Your task to perform on an android device: open app "Yahoo Mail" (install if not already installed), go to login, and select forgot password Image 0: 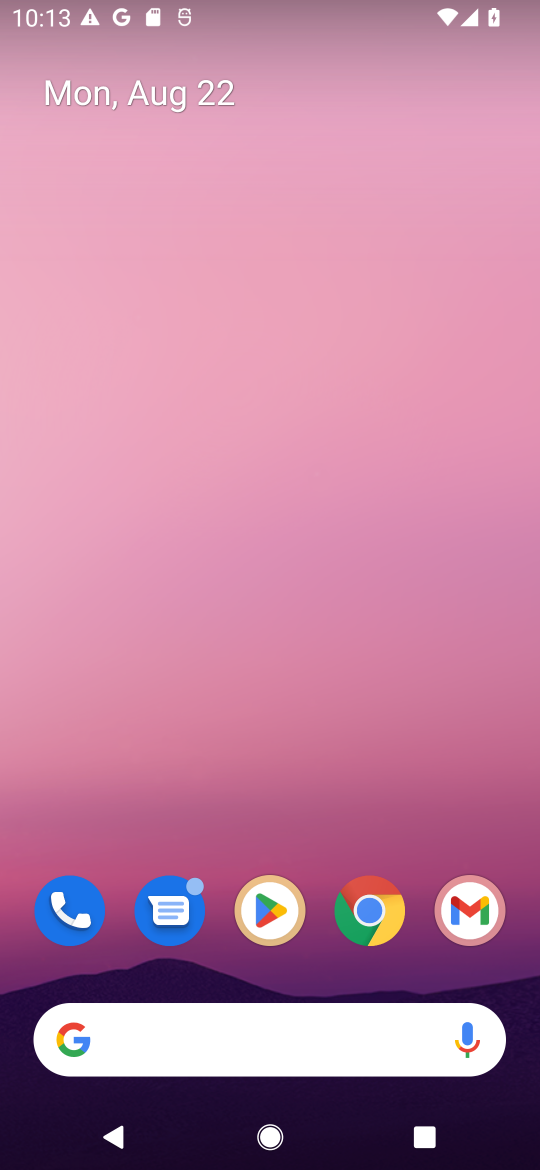
Step 0: click (287, 920)
Your task to perform on an android device: open app "Yahoo Mail" (install if not already installed), go to login, and select forgot password Image 1: 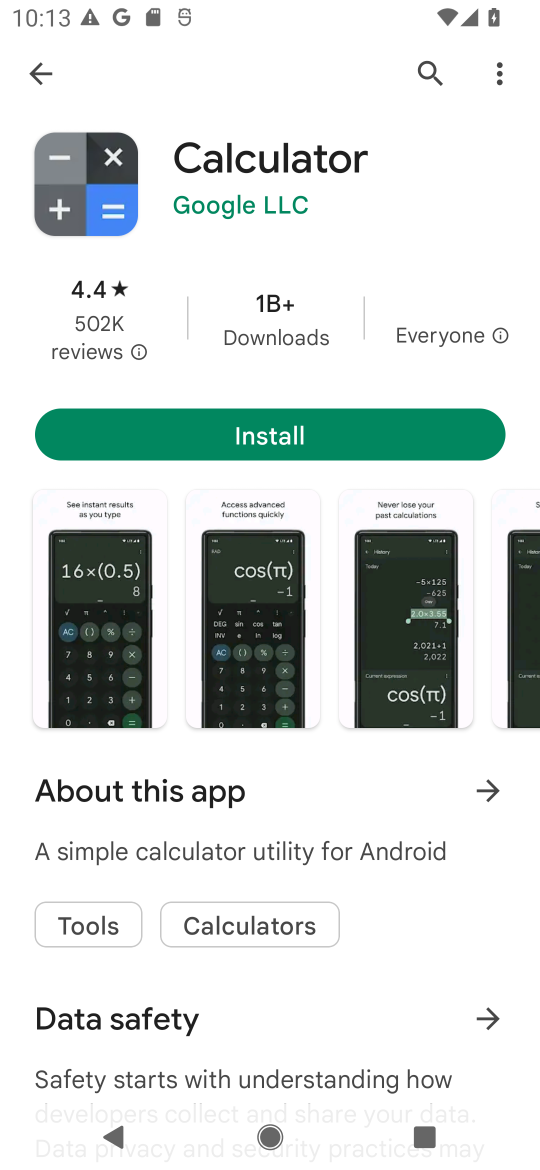
Step 1: click (422, 77)
Your task to perform on an android device: open app "Yahoo Mail" (install if not already installed), go to login, and select forgot password Image 2: 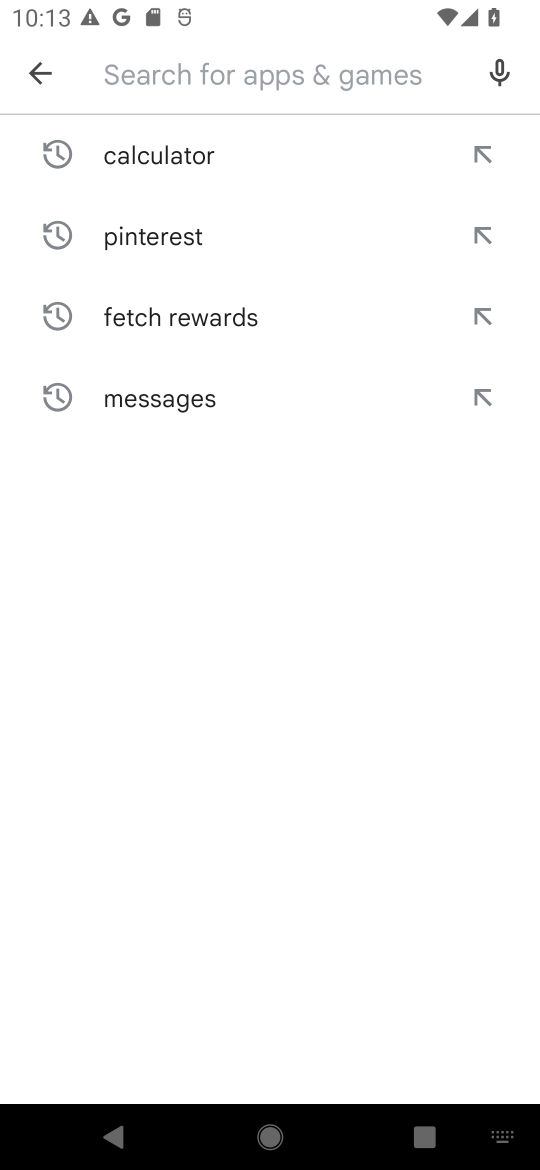
Step 2: type "Yahoo Mail"
Your task to perform on an android device: open app "Yahoo Mail" (install if not already installed), go to login, and select forgot password Image 3: 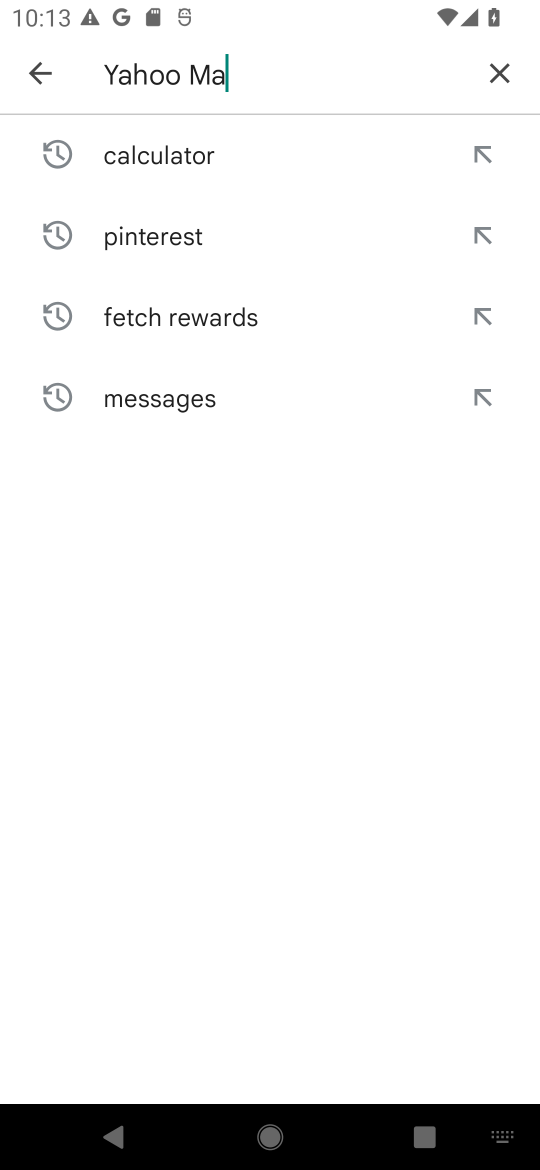
Step 3: type ""
Your task to perform on an android device: open app "Yahoo Mail" (install if not already installed), go to login, and select forgot password Image 4: 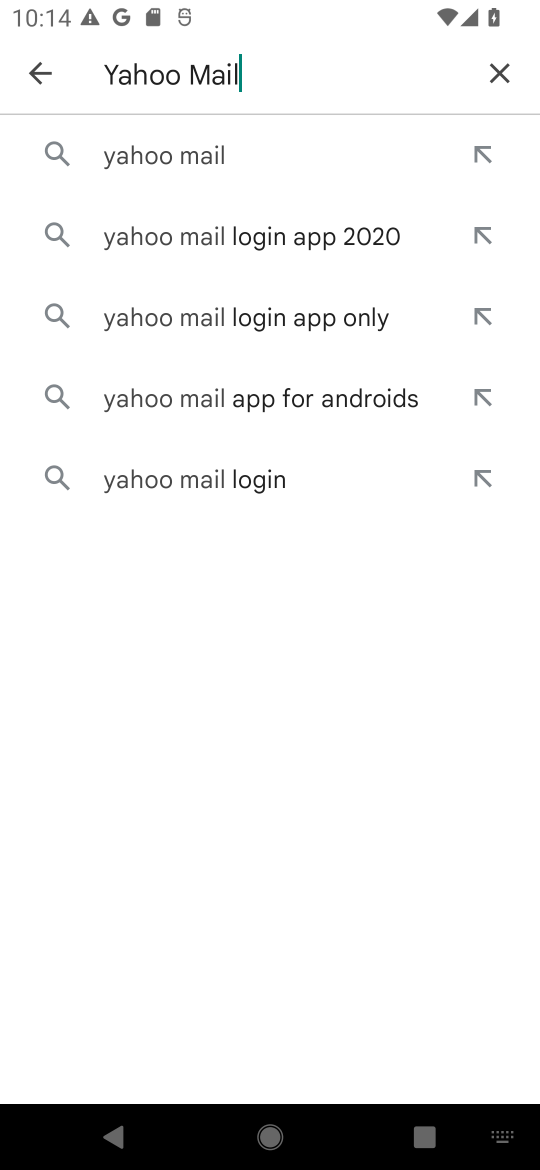
Step 4: click (217, 143)
Your task to perform on an android device: open app "Yahoo Mail" (install if not already installed), go to login, and select forgot password Image 5: 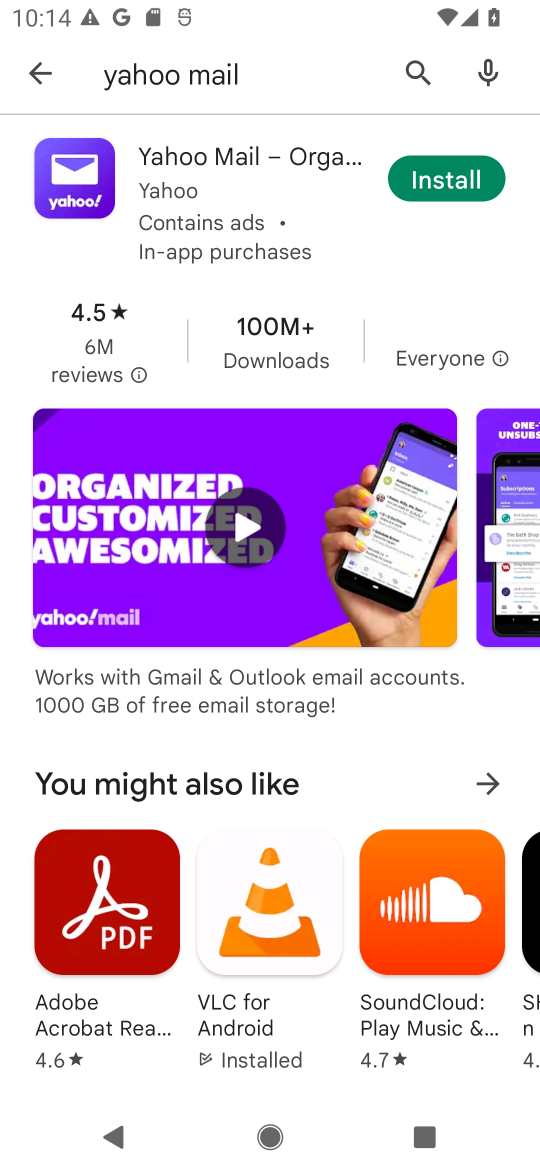
Step 5: click (452, 175)
Your task to perform on an android device: open app "Yahoo Mail" (install if not already installed), go to login, and select forgot password Image 6: 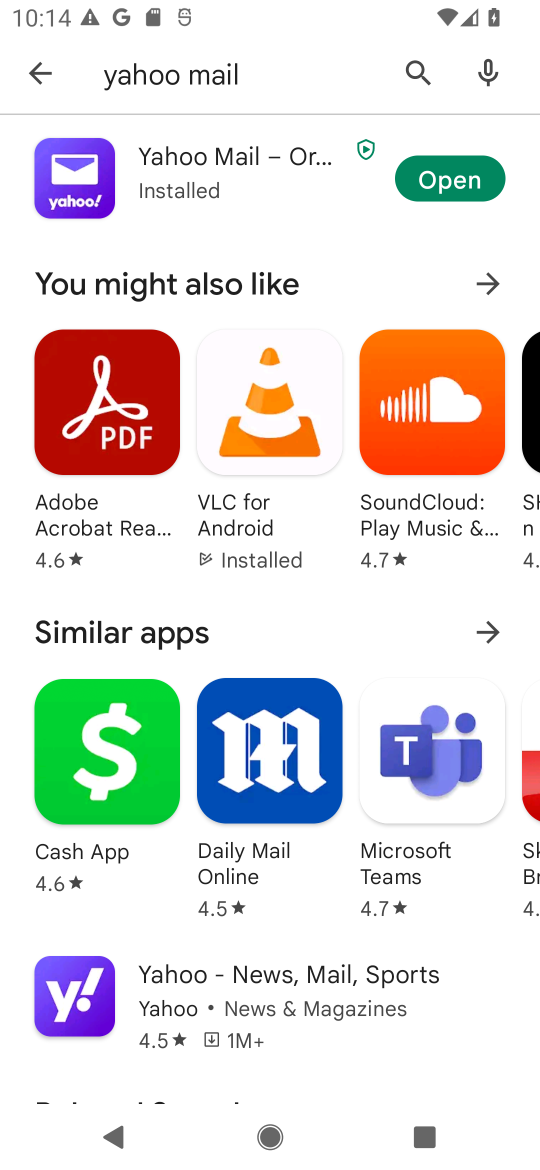
Step 6: click (425, 192)
Your task to perform on an android device: open app "Yahoo Mail" (install if not already installed), go to login, and select forgot password Image 7: 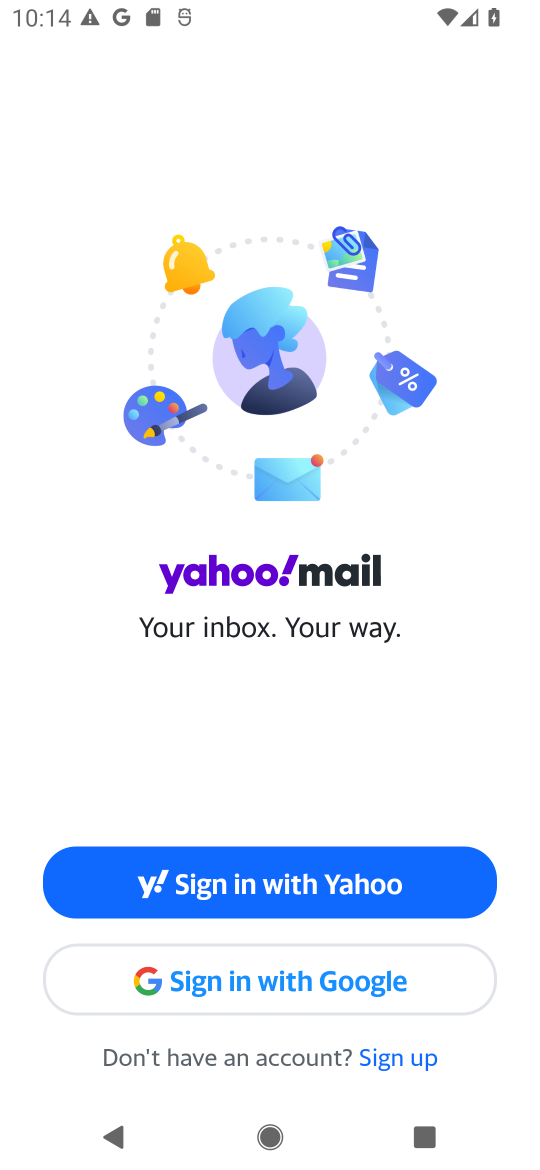
Step 7: task complete